Your task to perform on an android device: Clear the shopping cart on newegg. Add razer thresher to the cart on newegg Image 0: 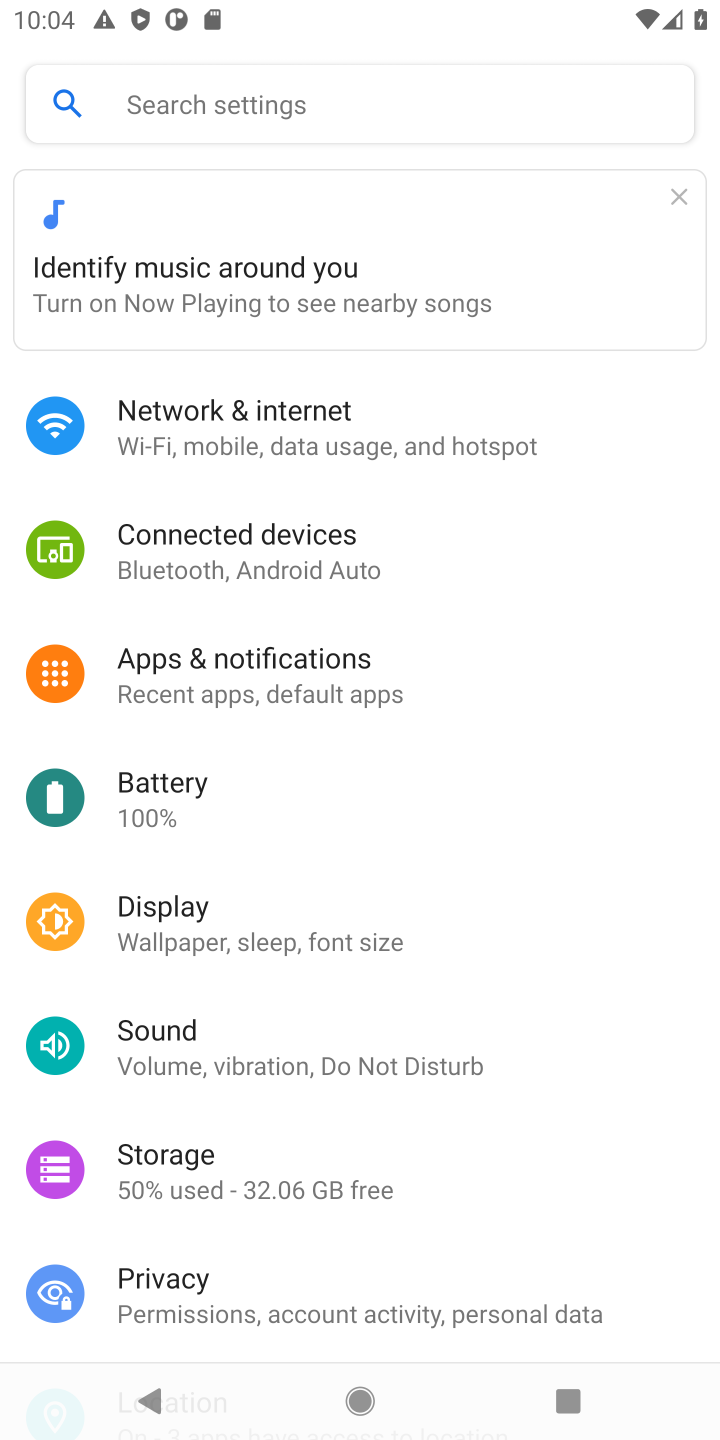
Step 0: press home button
Your task to perform on an android device: Clear the shopping cart on newegg. Add razer thresher to the cart on newegg Image 1: 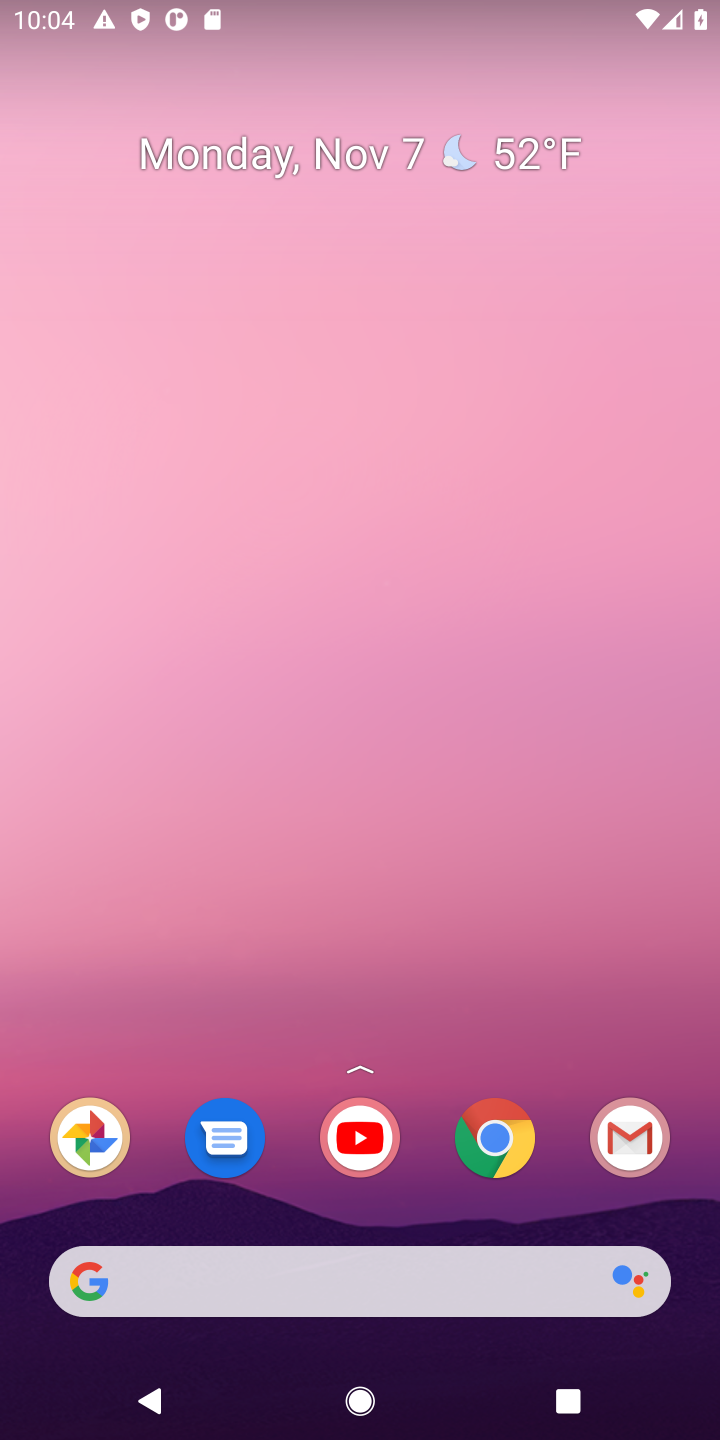
Step 1: drag from (428, 1221) to (350, 272)
Your task to perform on an android device: Clear the shopping cart on newegg. Add razer thresher to the cart on newegg Image 2: 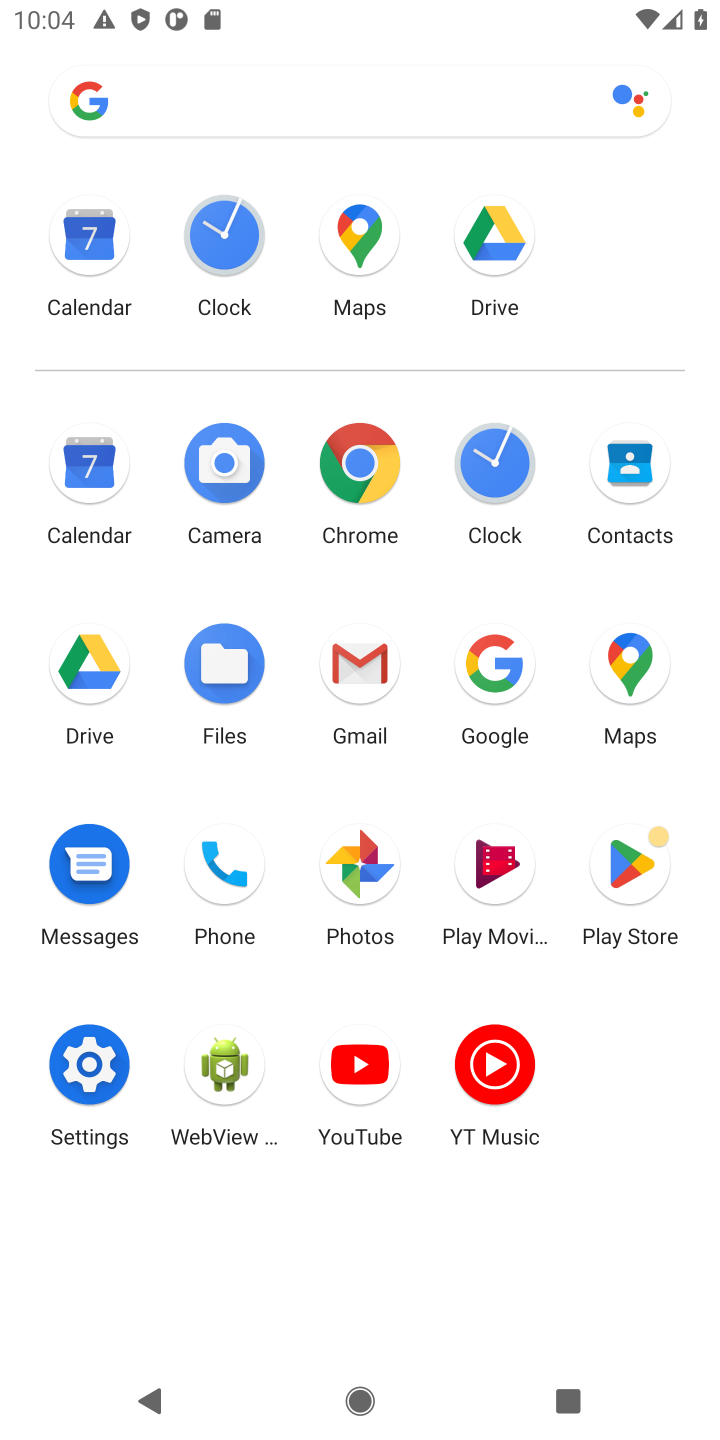
Step 2: click (351, 470)
Your task to perform on an android device: Clear the shopping cart on newegg. Add razer thresher to the cart on newegg Image 3: 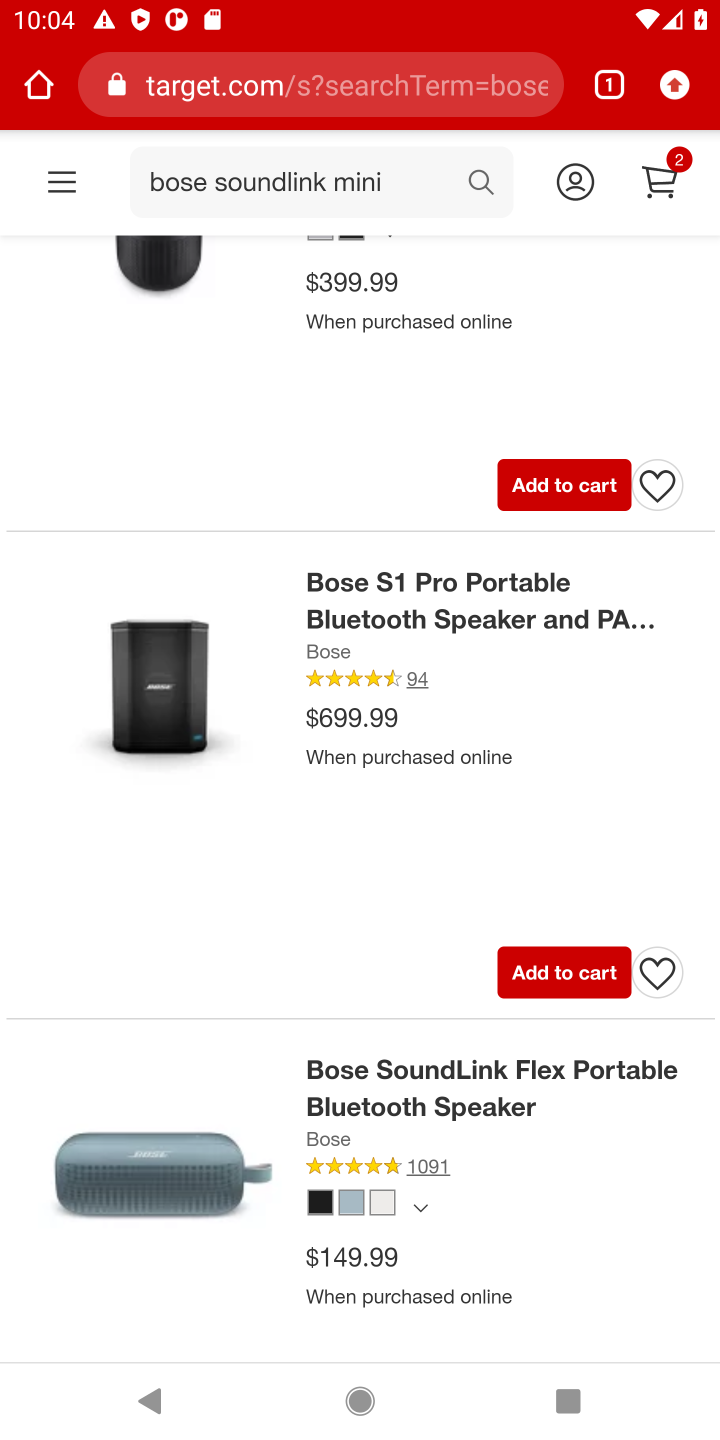
Step 3: click (353, 71)
Your task to perform on an android device: Clear the shopping cart on newegg. Add razer thresher to the cart on newegg Image 4: 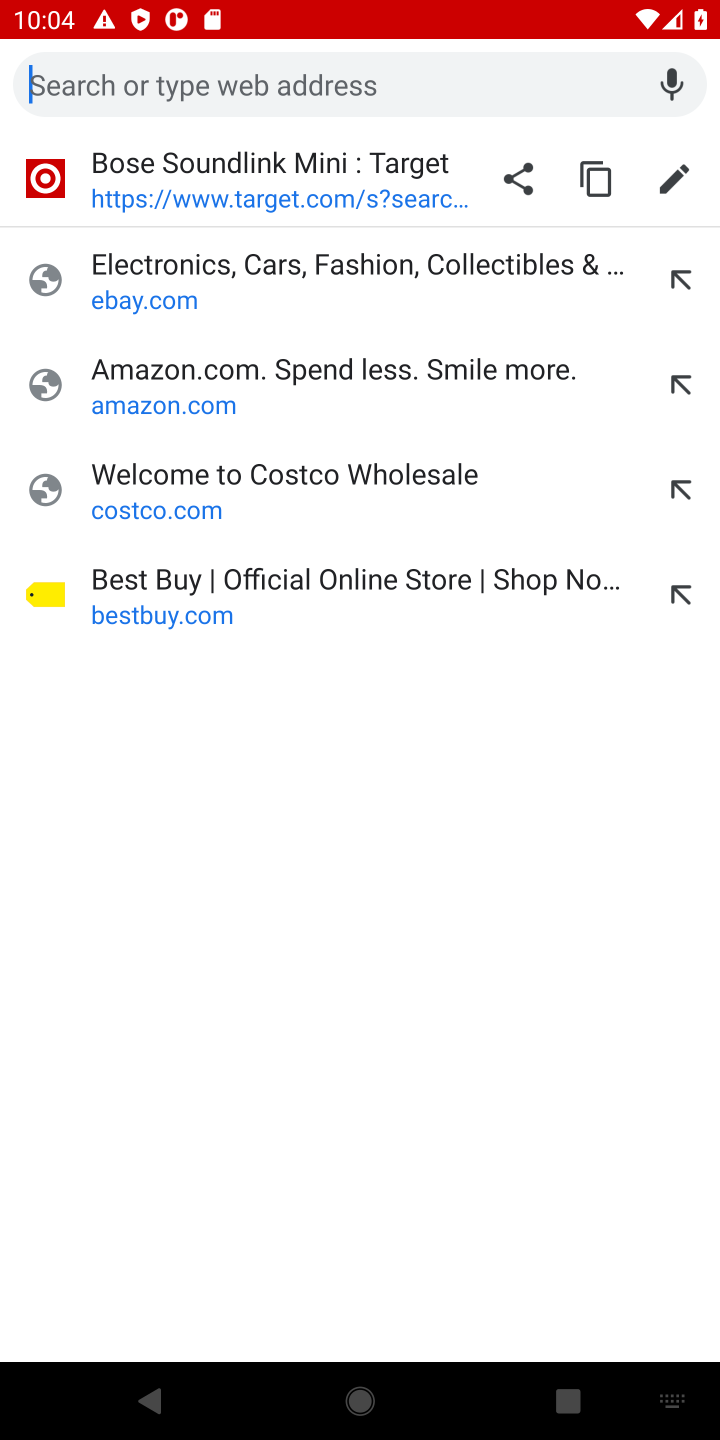
Step 4: type "newegg.com"
Your task to perform on an android device: Clear the shopping cart on newegg. Add razer thresher to the cart on newegg Image 5: 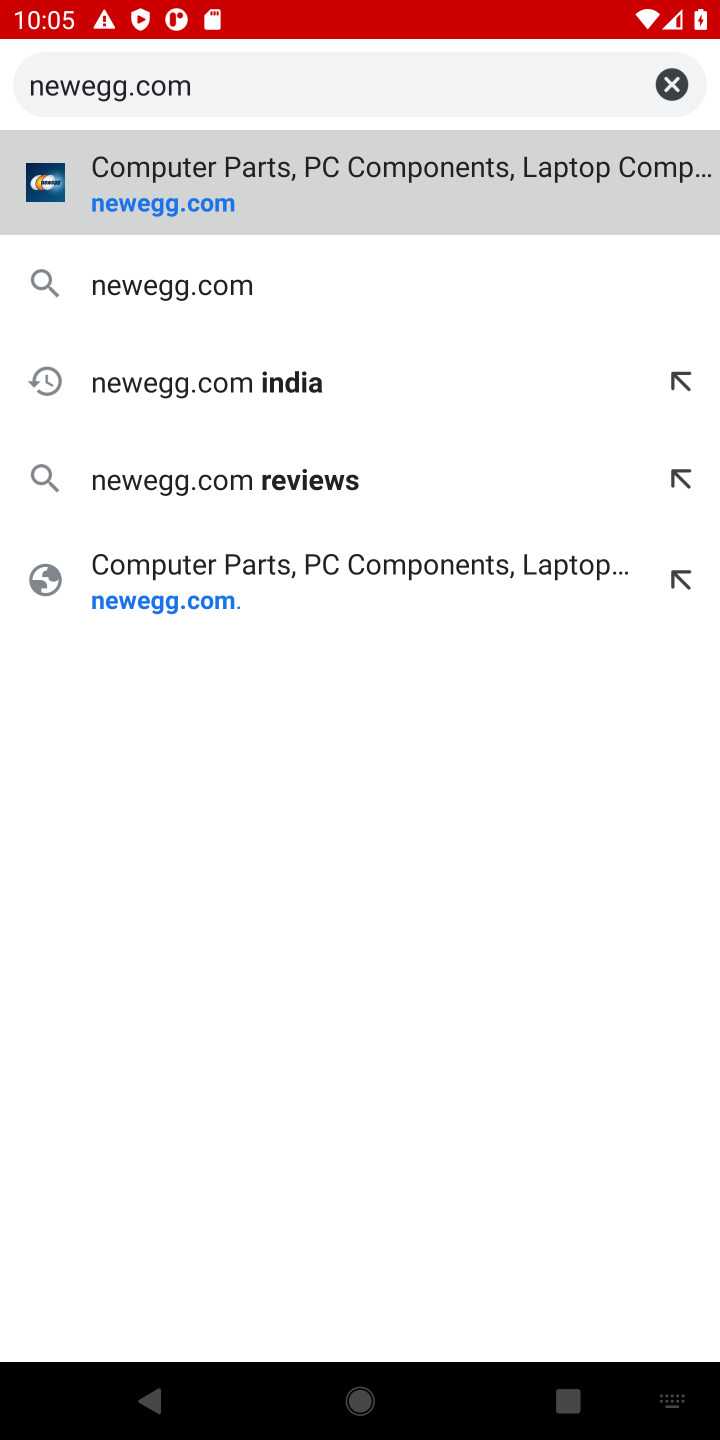
Step 5: press enter
Your task to perform on an android device: Clear the shopping cart on newegg. Add razer thresher to the cart on newegg Image 6: 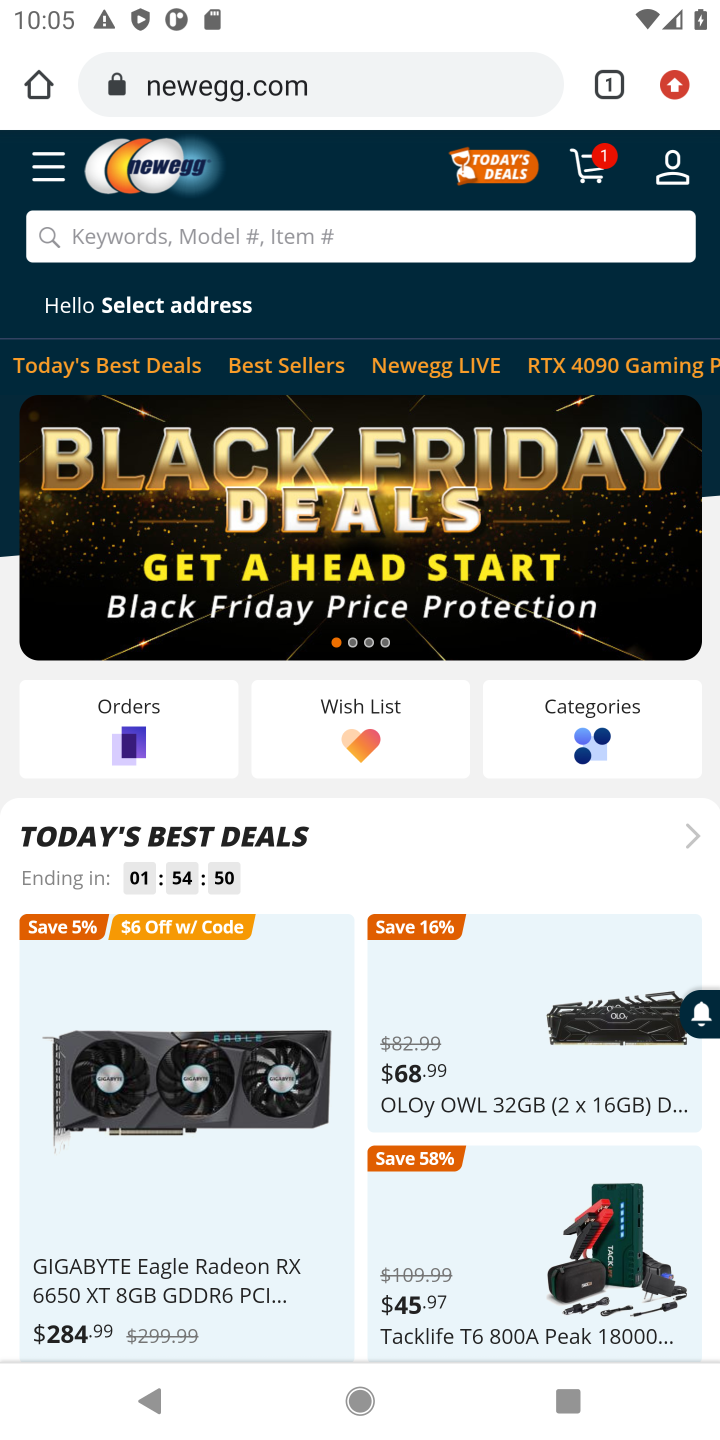
Step 6: click (598, 168)
Your task to perform on an android device: Clear the shopping cart on newegg. Add razer thresher to the cart on newegg Image 7: 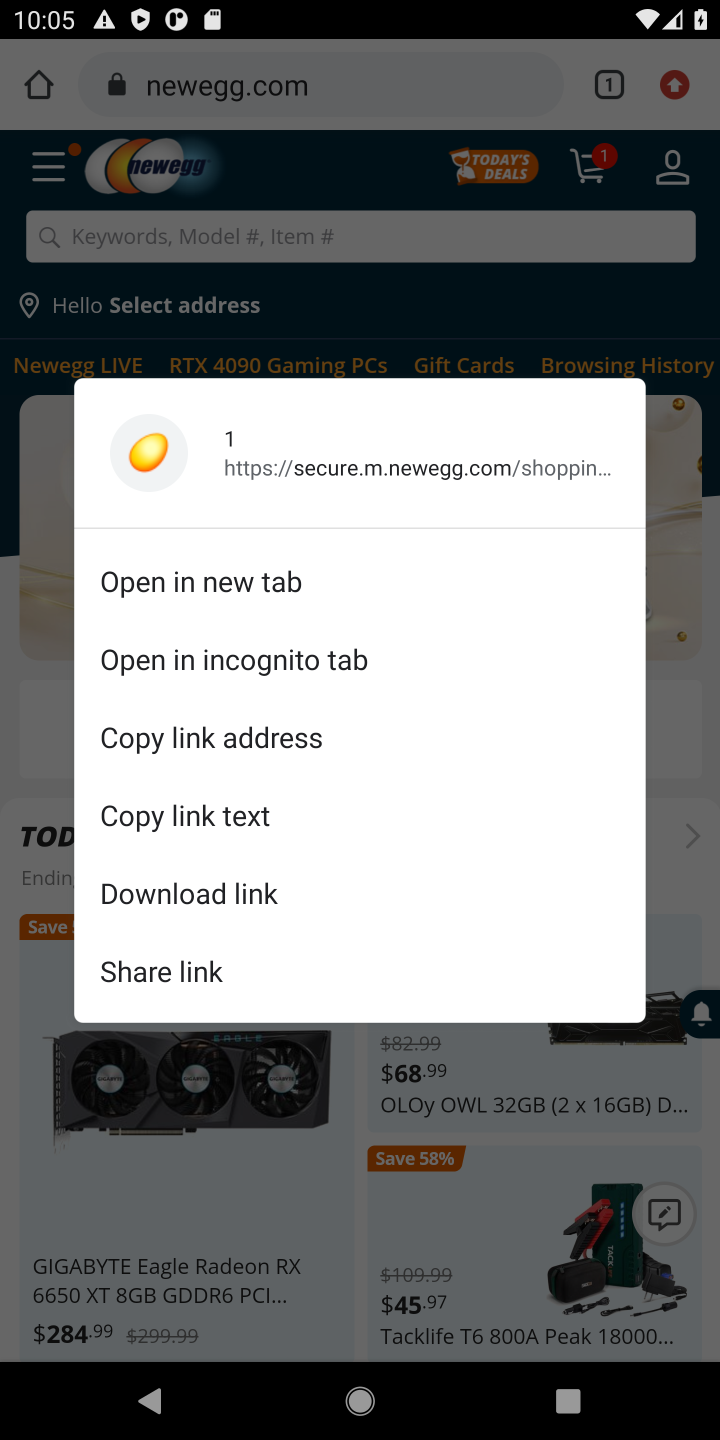
Step 7: click (611, 173)
Your task to perform on an android device: Clear the shopping cart on newegg. Add razer thresher to the cart on newegg Image 8: 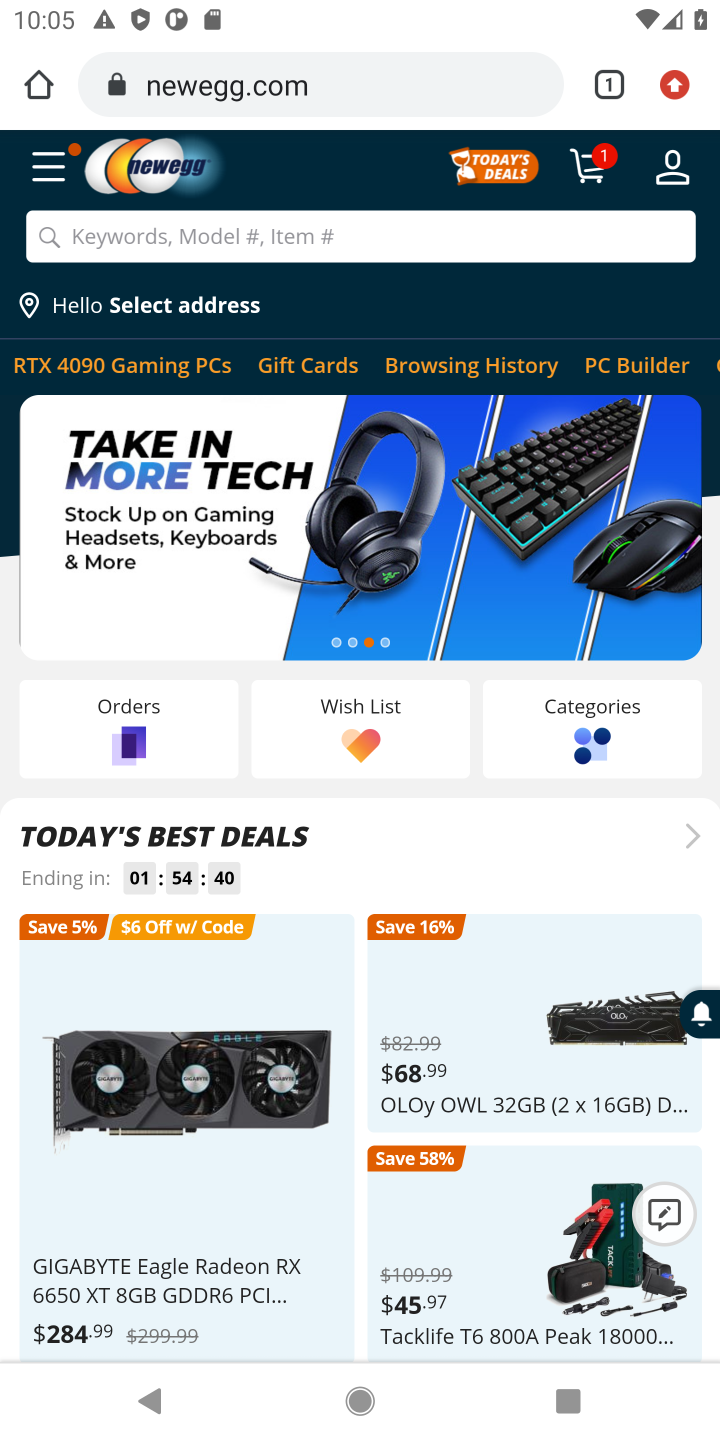
Step 8: click (594, 169)
Your task to perform on an android device: Clear the shopping cart on newegg. Add razer thresher to the cart on newegg Image 9: 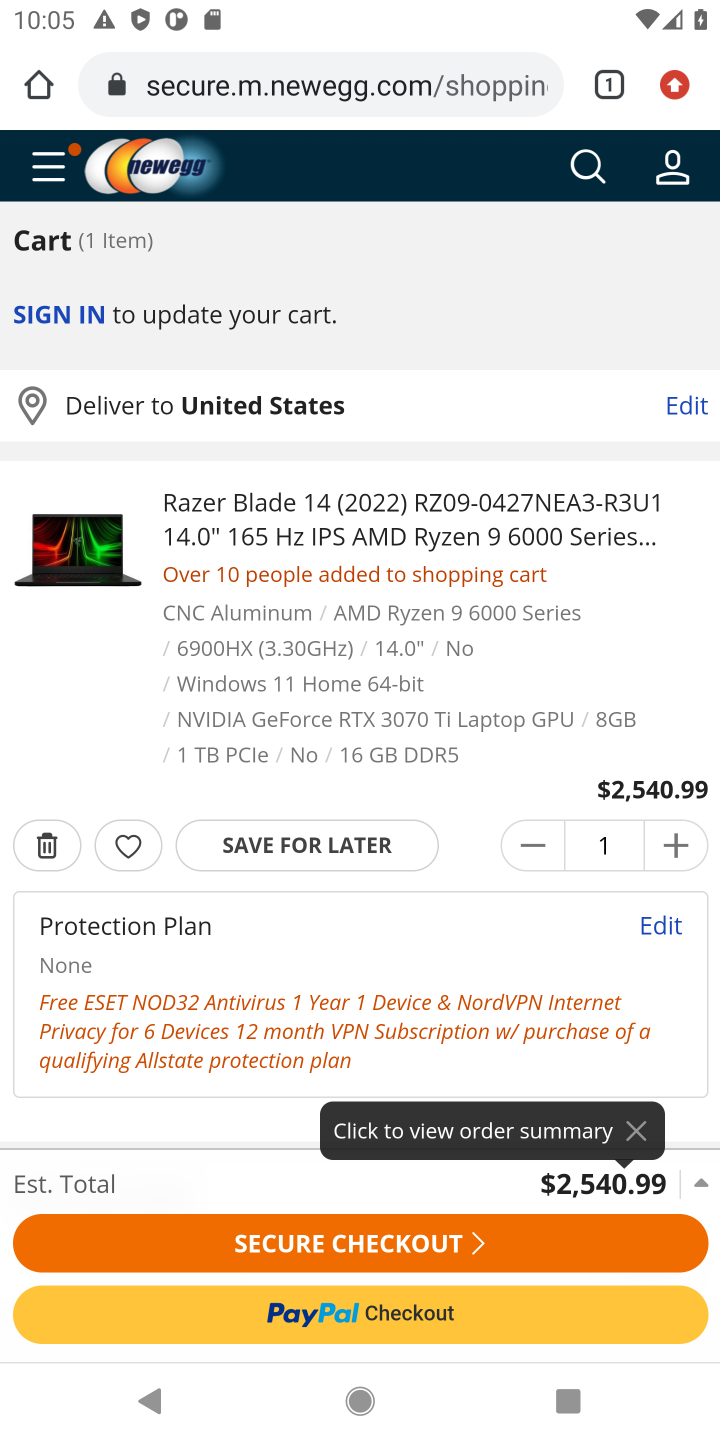
Step 9: click (54, 839)
Your task to perform on an android device: Clear the shopping cart on newegg. Add razer thresher to the cart on newegg Image 10: 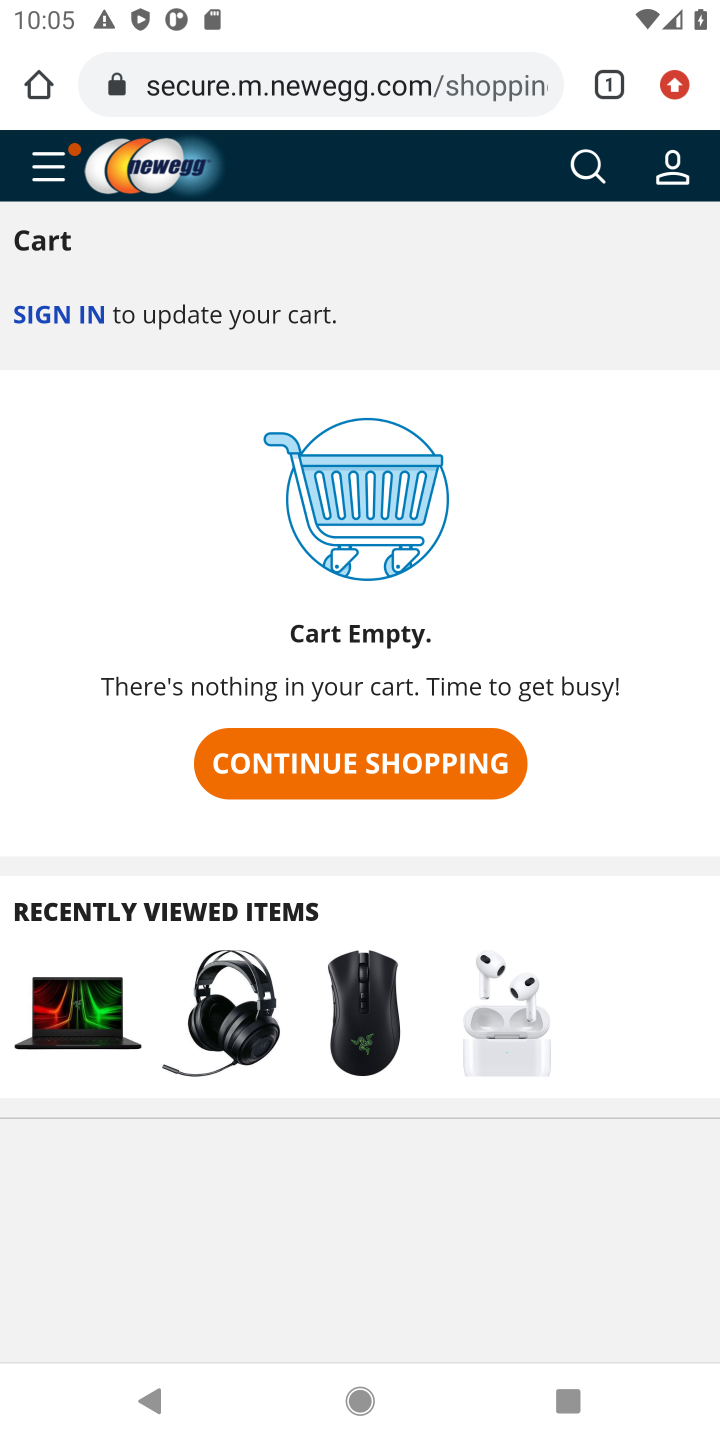
Step 10: click (586, 170)
Your task to perform on an android device: Clear the shopping cart on newegg. Add razer thresher to the cart on newegg Image 11: 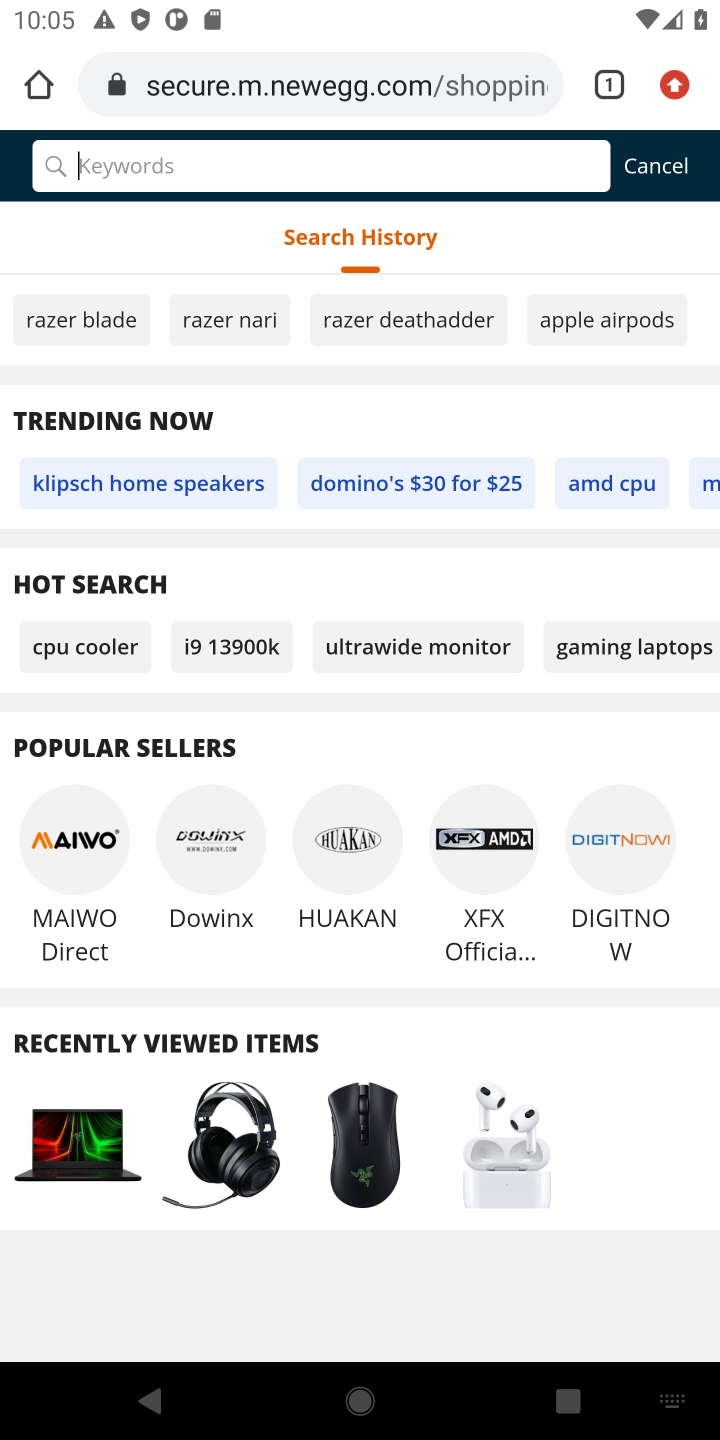
Step 11: type "razer thresher"
Your task to perform on an android device: Clear the shopping cart on newegg. Add razer thresher to the cart on newegg Image 12: 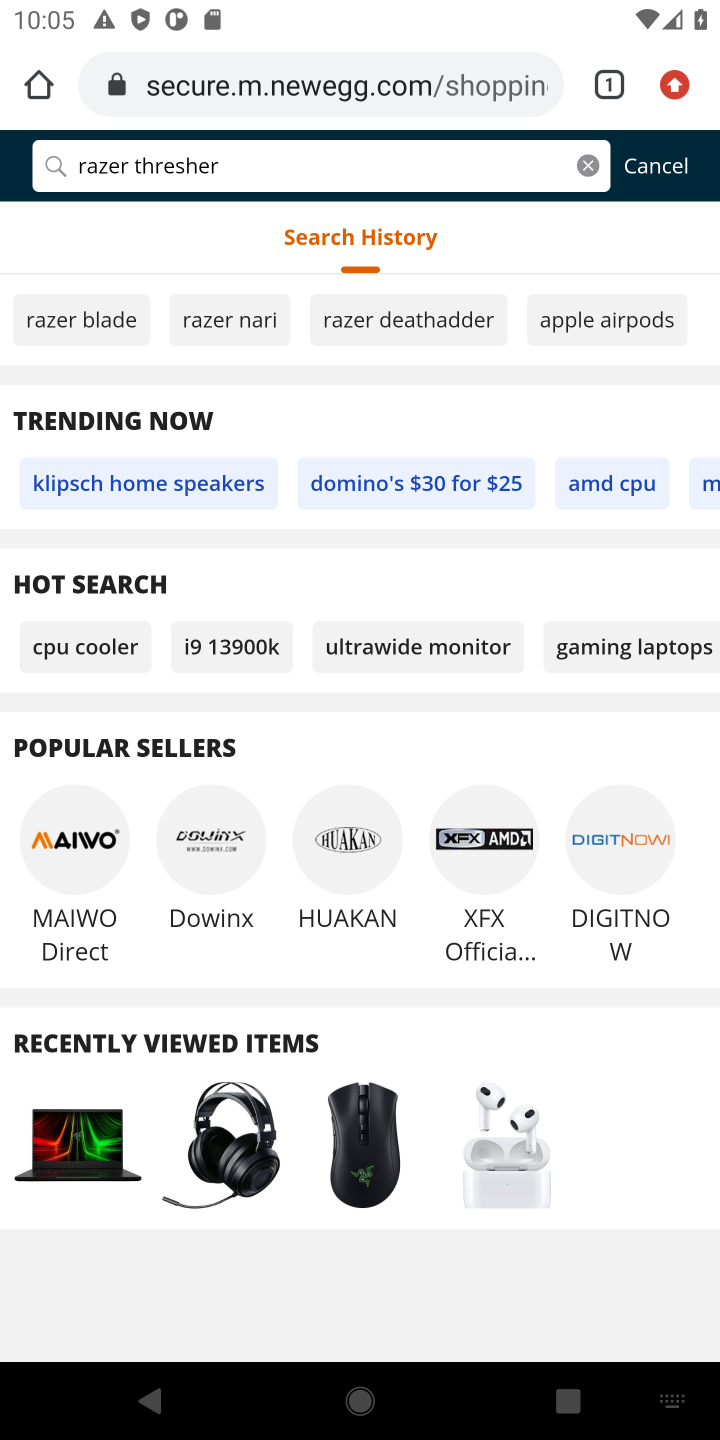
Step 12: press enter
Your task to perform on an android device: Clear the shopping cart on newegg. Add razer thresher to the cart on newegg Image 13: 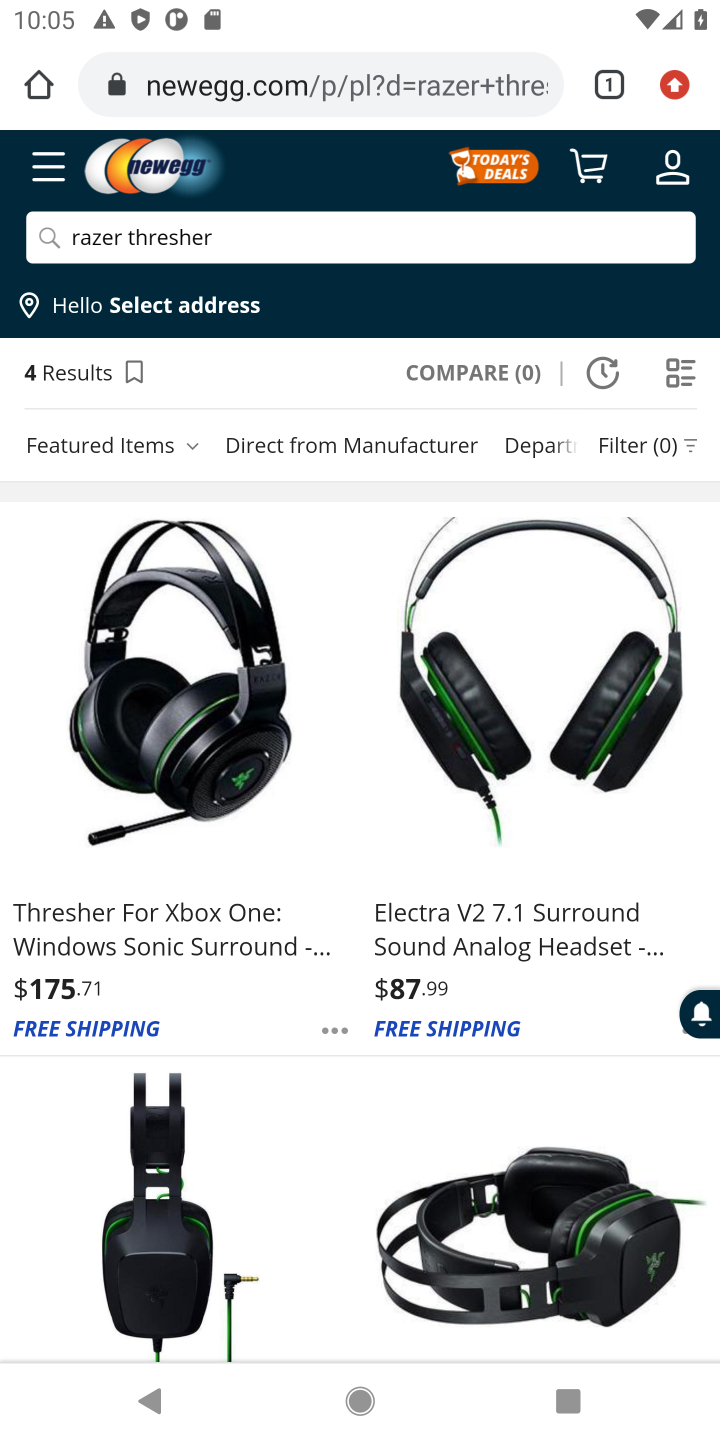
Step 13: drag from (409, 1098) to (437, 398)
Your task to perform on an android device: Clear the shopping cart on newegg. Add razer thresher to the cart on newegg Image 14: 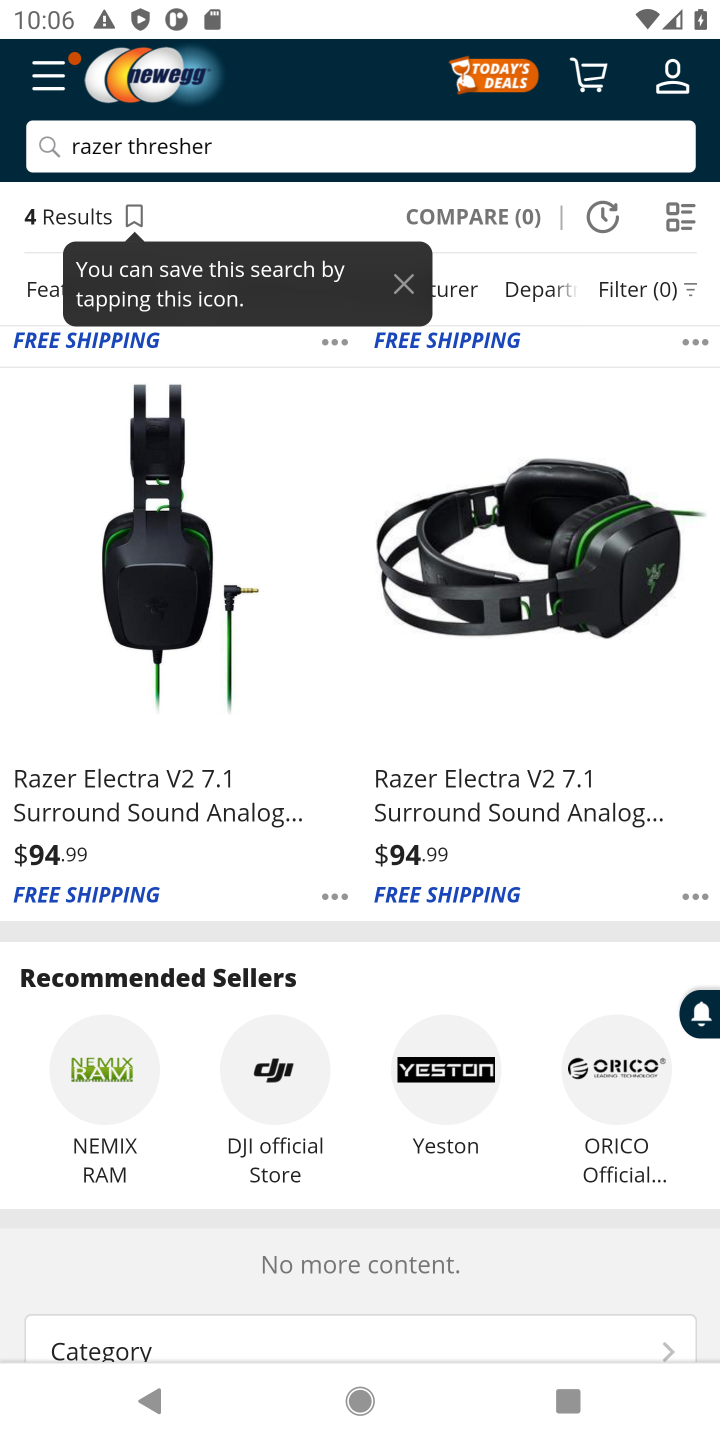
Step 14: drag from (310, 551) to (330, 352)
Your task to perform on an android device: Clear the shopping cart on newegg. Add razer thresher to the cart on newegg Image 15: 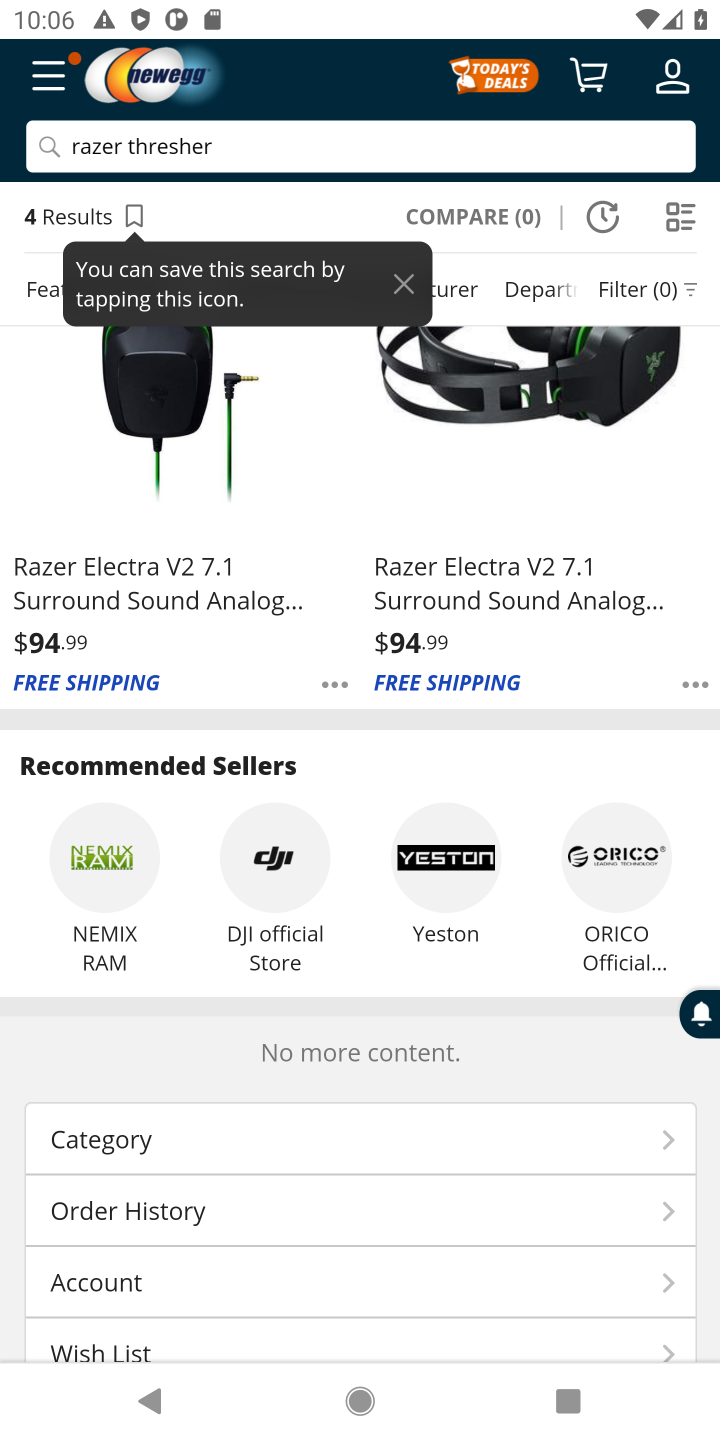
Step 15: drag from (278, 365) to (490, 1183)
Your task to perform on an android device: Clear the shopping cart on newegg. Add razer thresher to the cart on newegg Image 16: 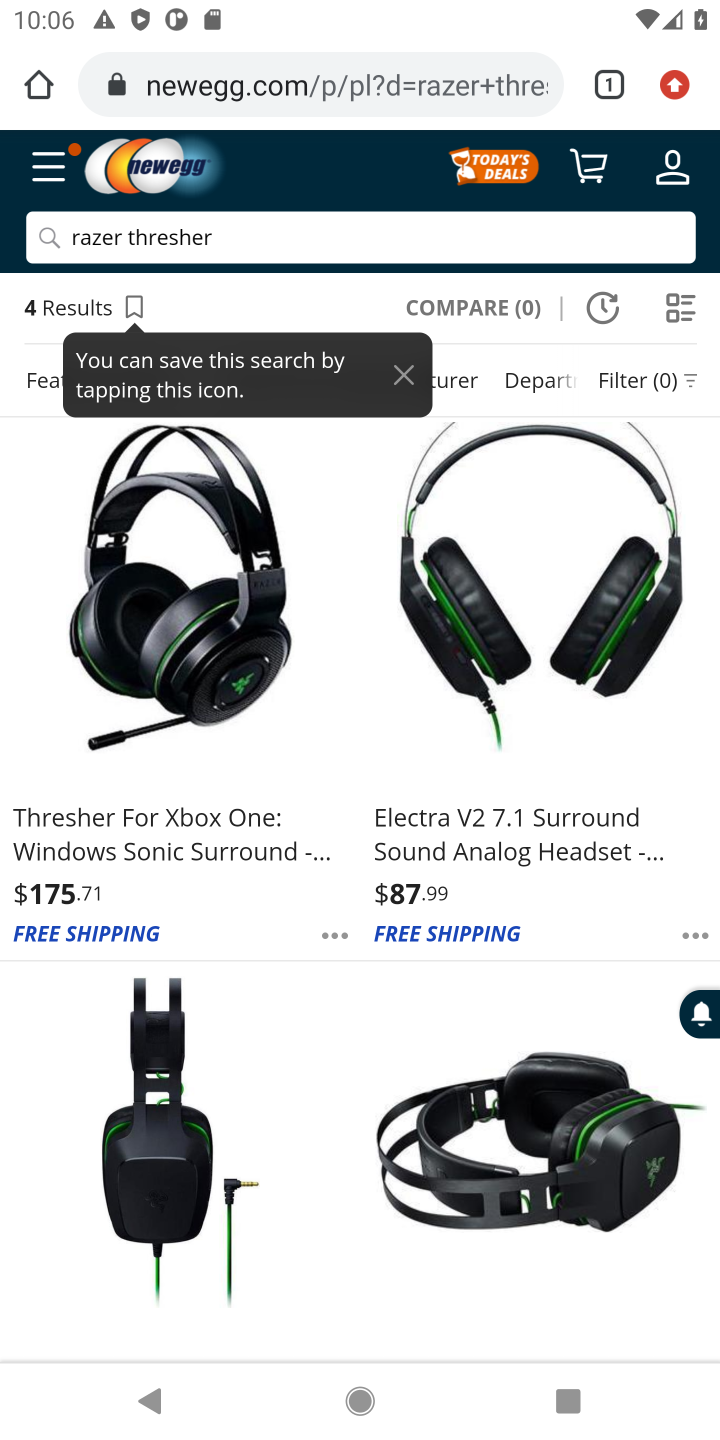
Step 16: drag from (324, 658) to (348, 1153)
Your task to perform on an android device: Clear the shopping cart on newegg. Add razer thresher to the cart on newegg Image 17: 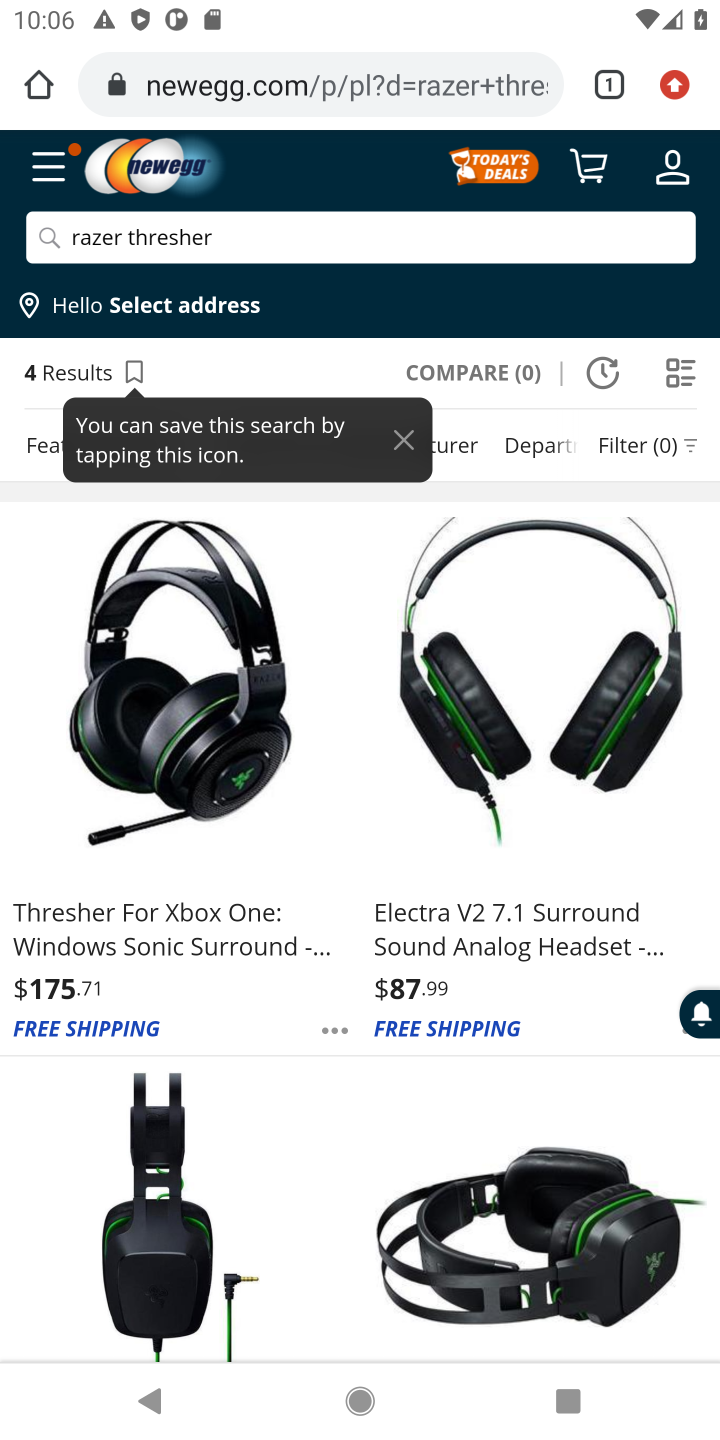
Step 17: click (148, 940)
Your task to perform on an android device: Clear the shopping cart on newegg. Add razer thresher to the cart on newegg Image 18: 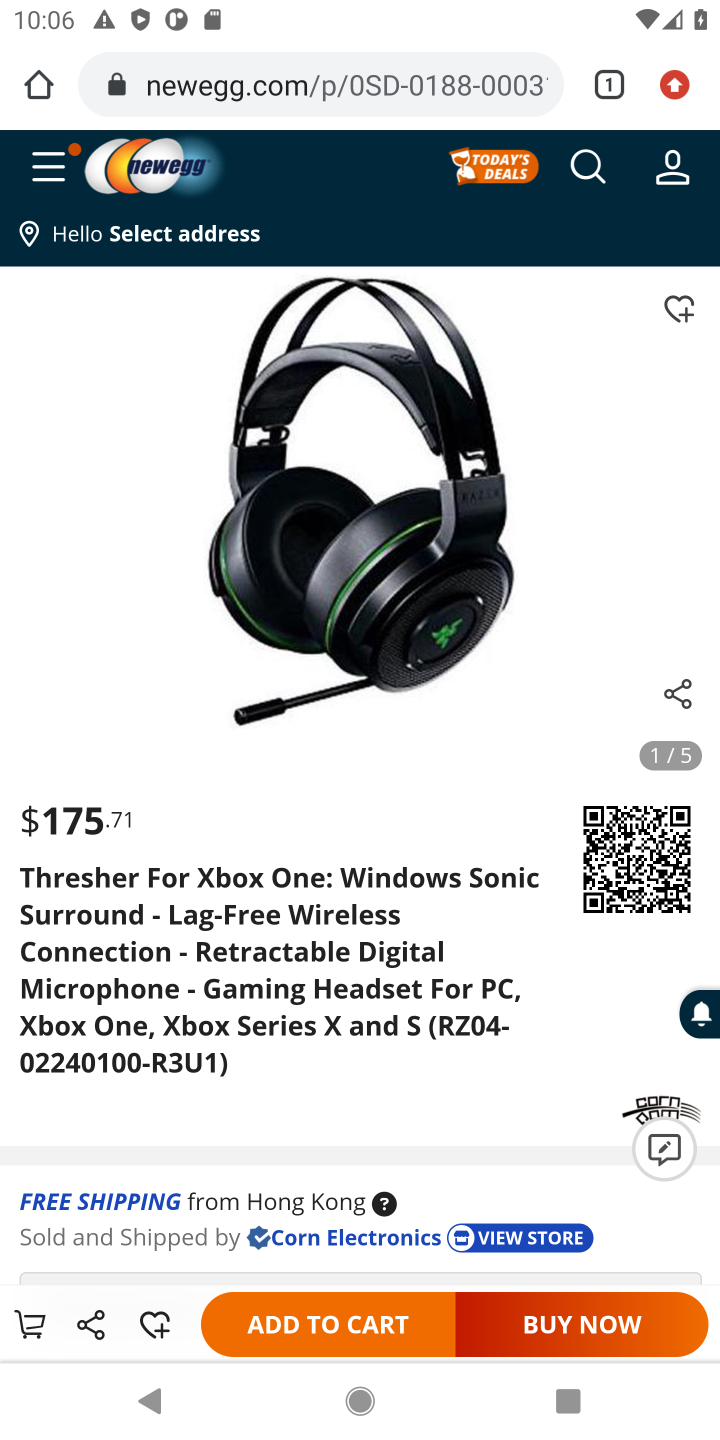
Step 18: task complete